Your task to perform on an android device: Open the phone app and click the voicemail tab. Image 0: 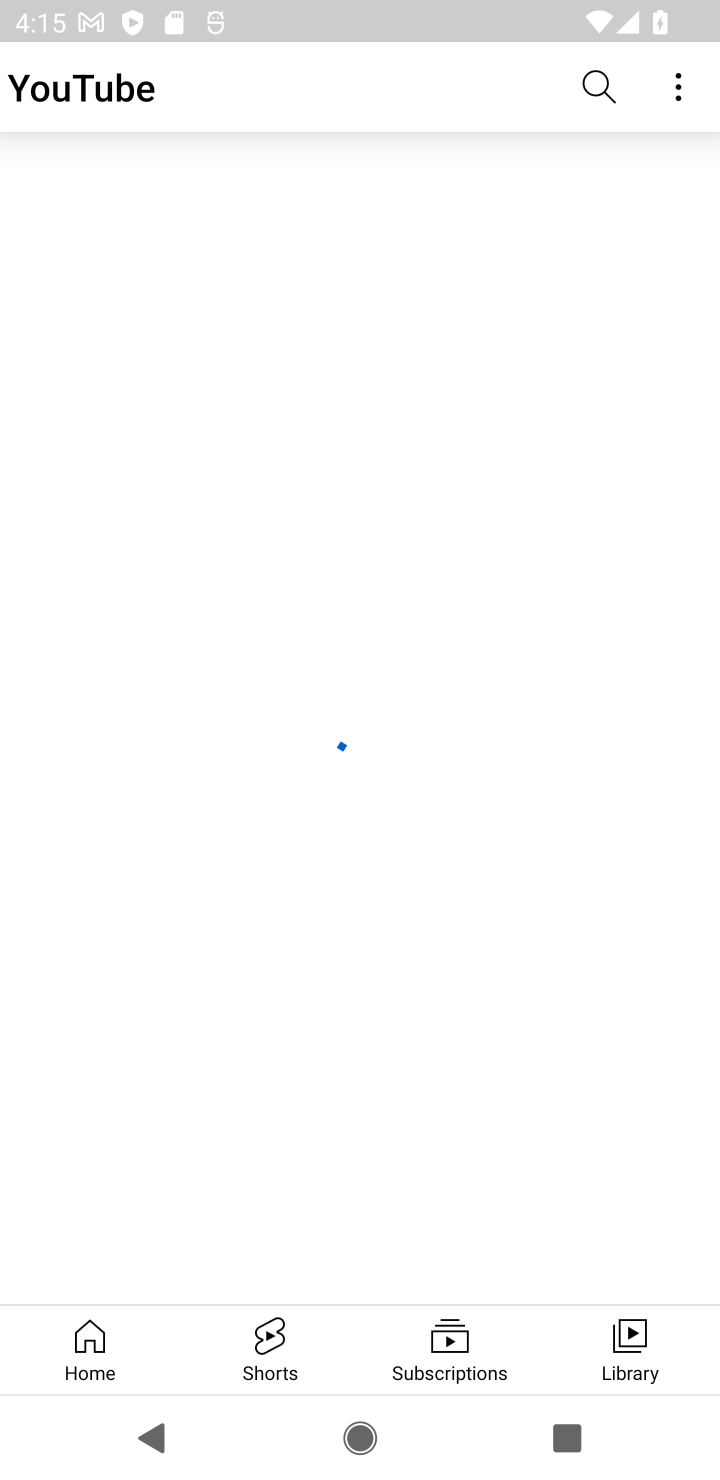
Step 0: press home button
Your task to perform on an android device: Open the phone app and click the voicemail tab. Image 1: 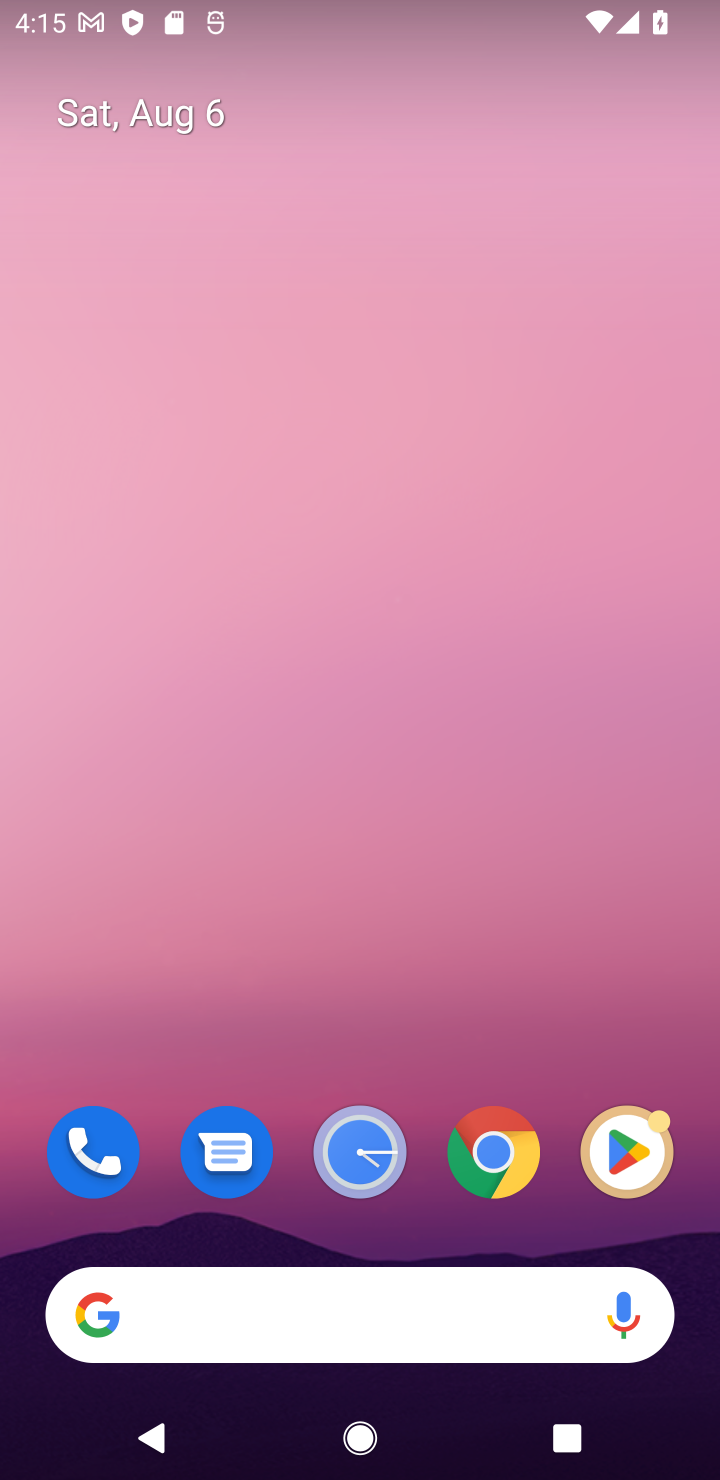
Step 1: drag from (568, 1030) to (523, 222)
Your task to perform on an android device: Open the phone app and click the voicemail tab. Image 2: 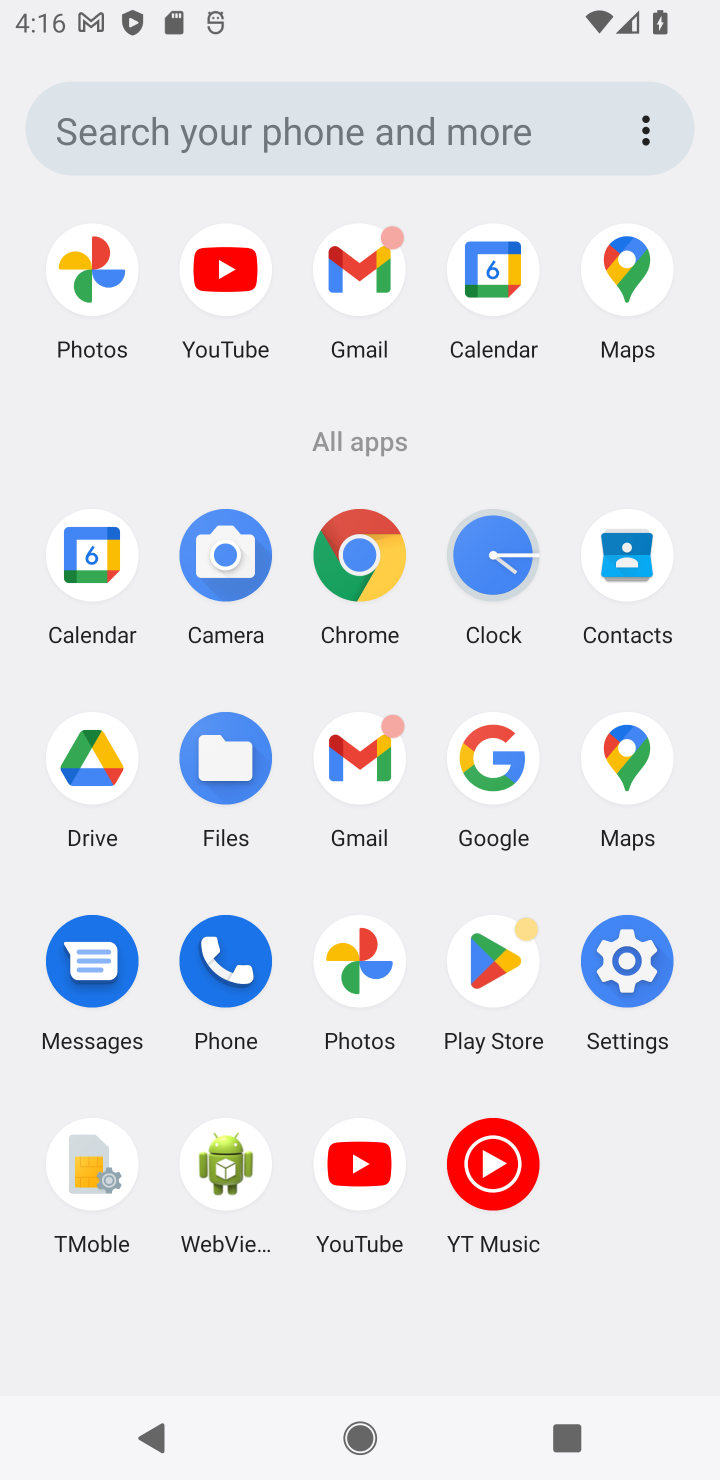
Step 2: click (234, 950)
Your task to perform on an android device: Open the phone app and click the voicemail tab. Image 3: 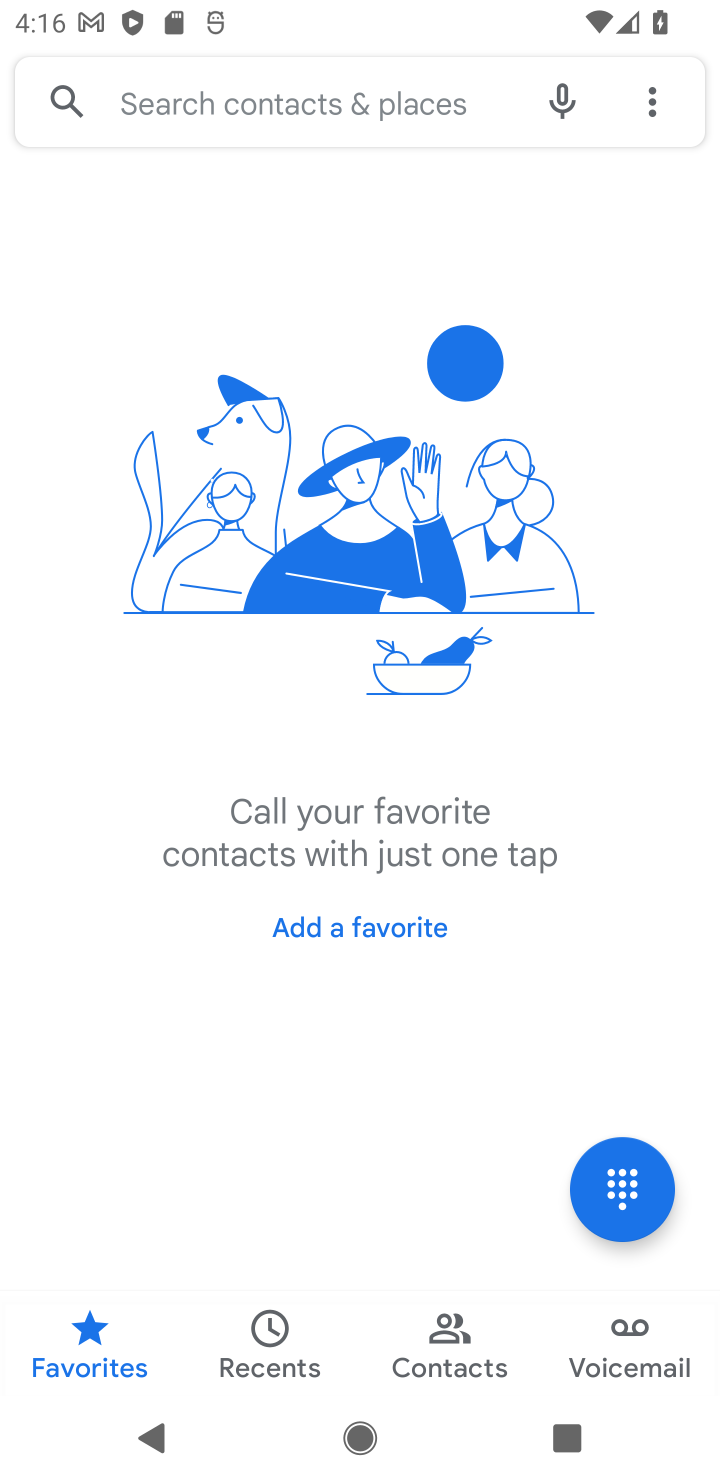
Step 3: click (630, 1320)
Your task to perform on an android device: Open the phone app and click the voicemail tab. Image 4: 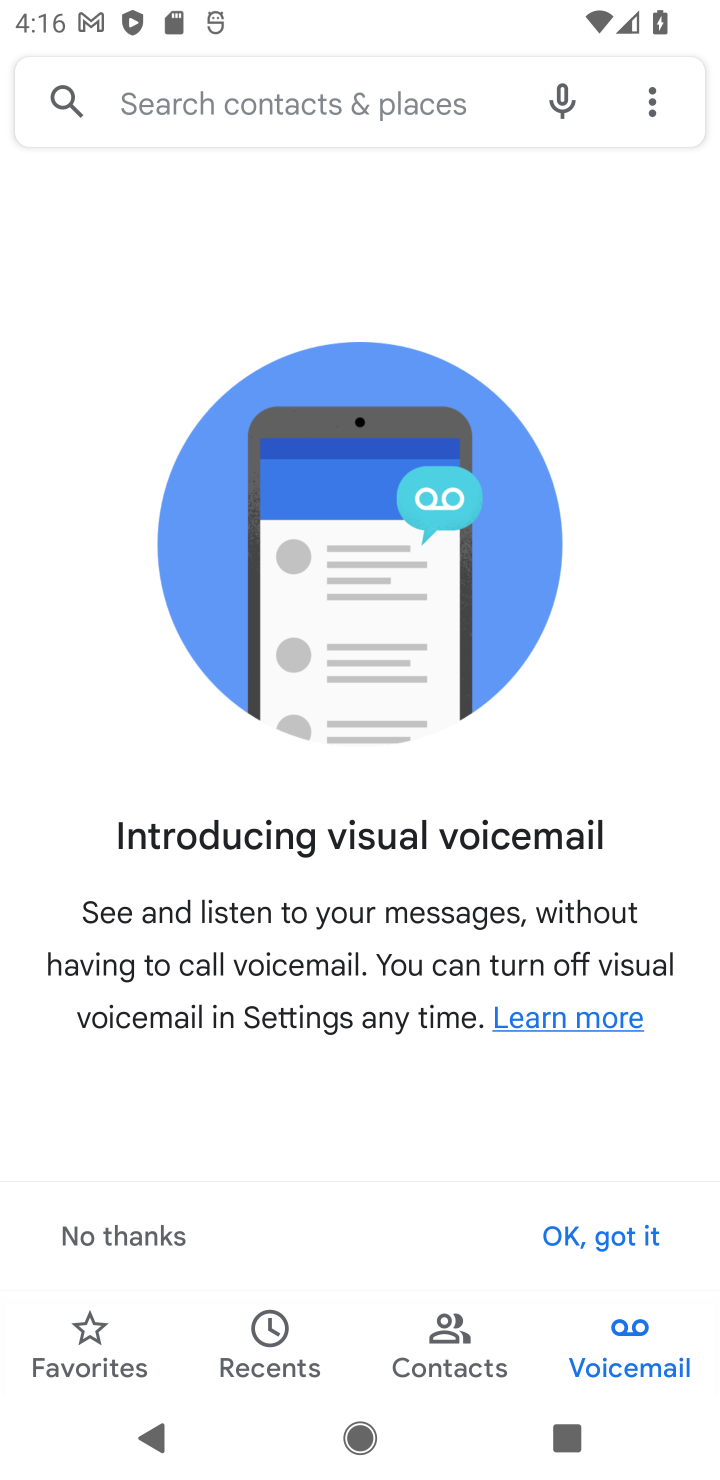
Step 4: task complete